Your task to perform on an android device: choose inbox layout in the gmail app Image 0: 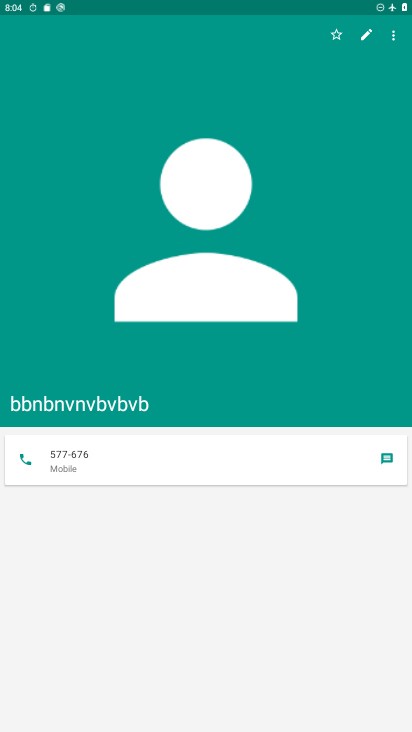
Step 0: press home button
Your task to perform on an android device: choose inbox layout in the gmail app Image 1: 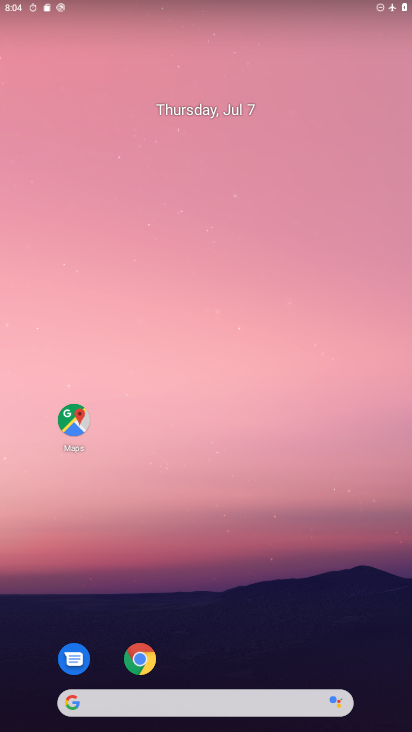
Step 1: drag from (379, 686) to (275, 7)
Your task to perform on an android device: choose inbox layout in the gmail app Image 2: 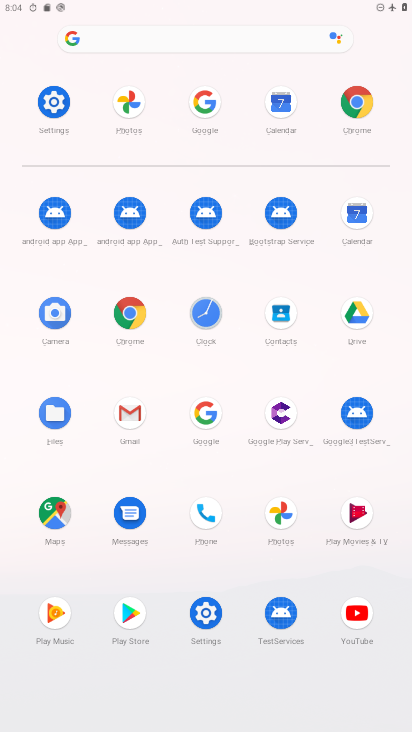
Step 2: click (132, 417)
Your task to perform on an android device: choose inbox layout in the gmail app Image 3: 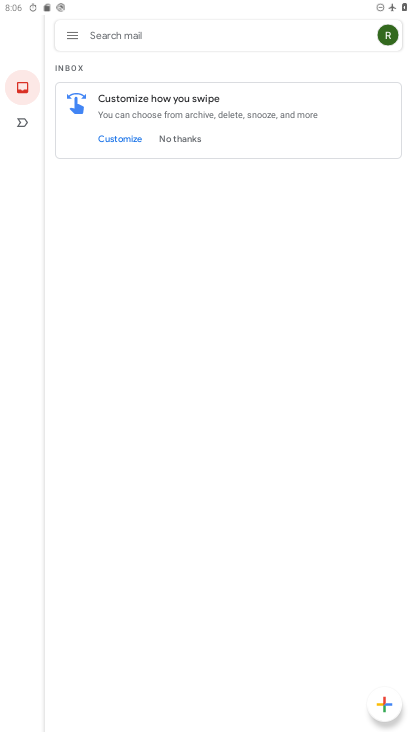
Step 3: task complete